Your task to perform on an android device: Open calendar and show me the third week of next month Image 0: 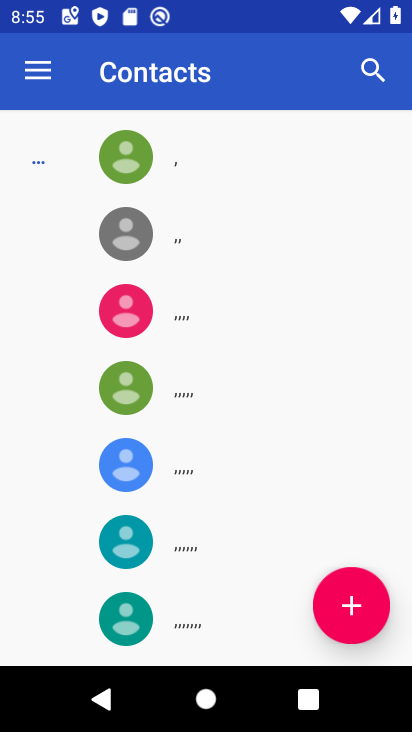
Step 0: press home button
Your task to perform on an android device: Open calendar and show me the third week of next month Image 1: 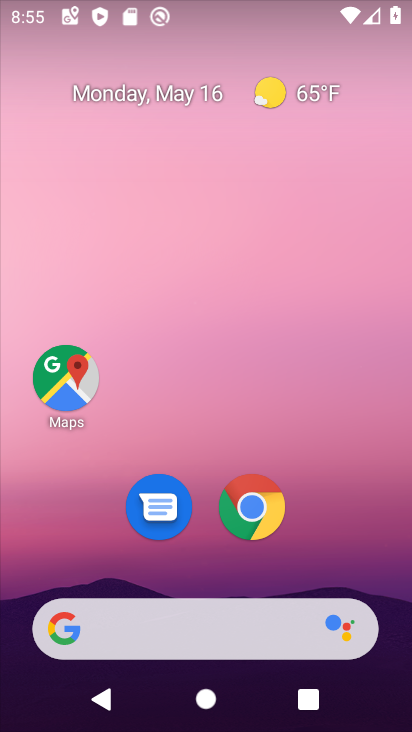
Step 1: drag from (183, 575) to (338, 10)
Your task to perform on an android device: Open calendar and show me the third week of next month Image 2: 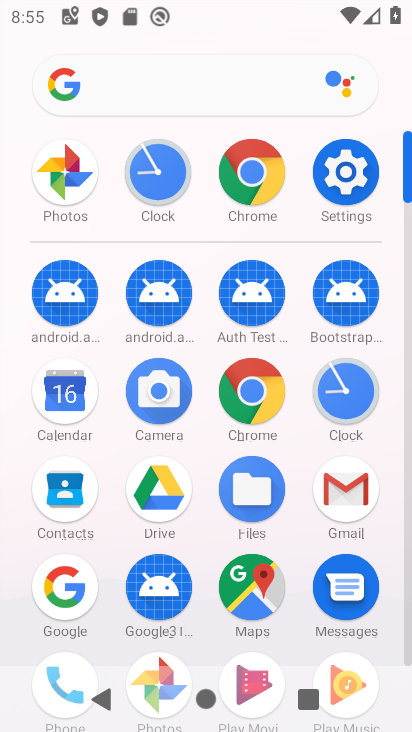
Step 2: click (61, 401)
Your task to perform on an android device: Open calendar and show me the third week of next month Image 3: 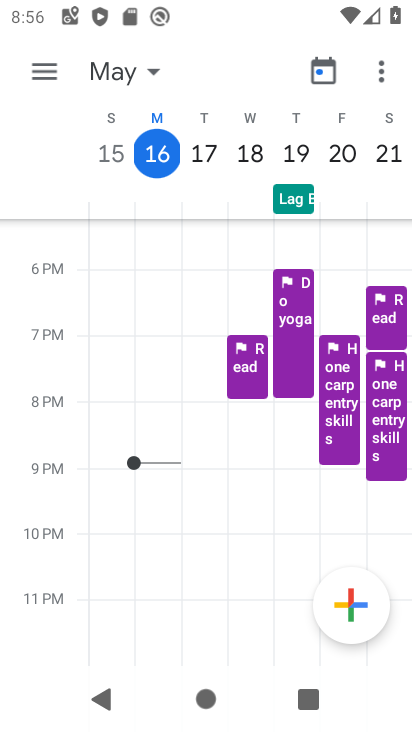
Step 3: click (309, 66)
Your task to perform on an android device: Open calendar and show me the third week of next month Image 4: 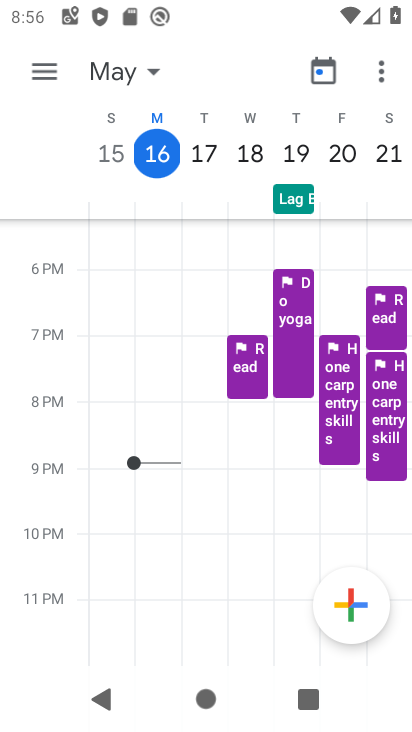
Step 4: click (318, 77)
Your task to perform on an android device: Open calendar and show me the third week of next month Image 5: 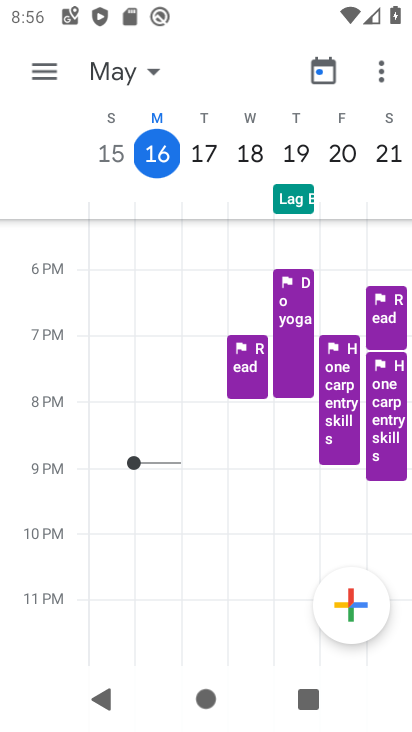
Step 5: click (313, 62)
Your task to perform on an android device: Open calendar and show me the third week of next month Image 6: 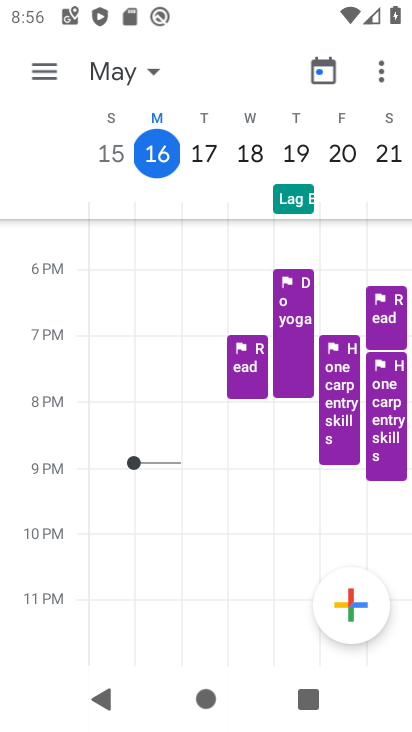
Step 6: click (312, 62)
Your task to perform on an android device: Open calendar and show me the third week of next month Image 7: 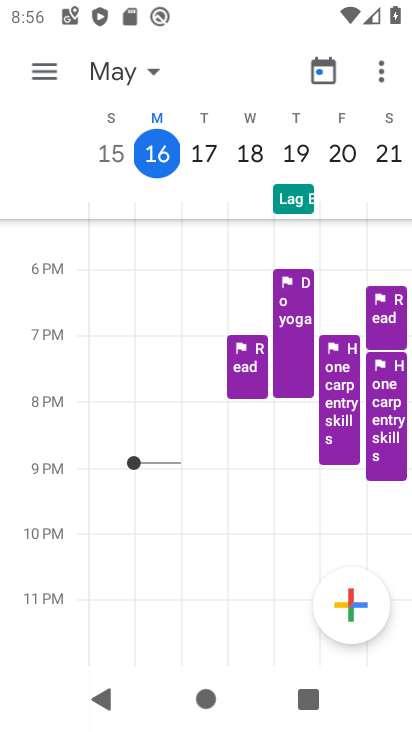
Step 7: task complete